Your task to perform on an android device: Search for seafood restaurants on Google Maps Image 0: 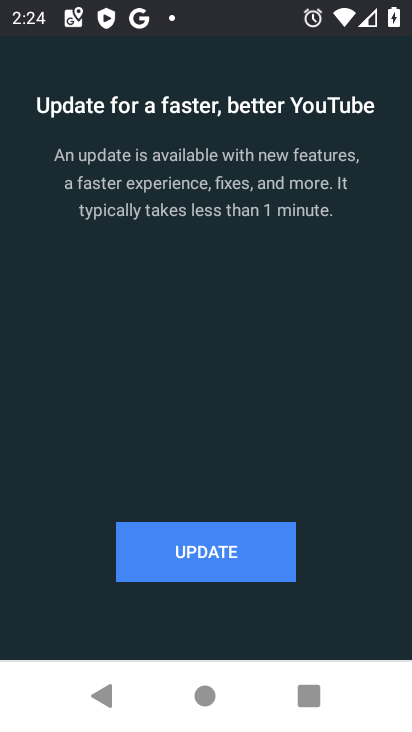
Step 0: press home button
Your task to perform on an android device: Search for seafood restaurants on Google Maps Image 1: 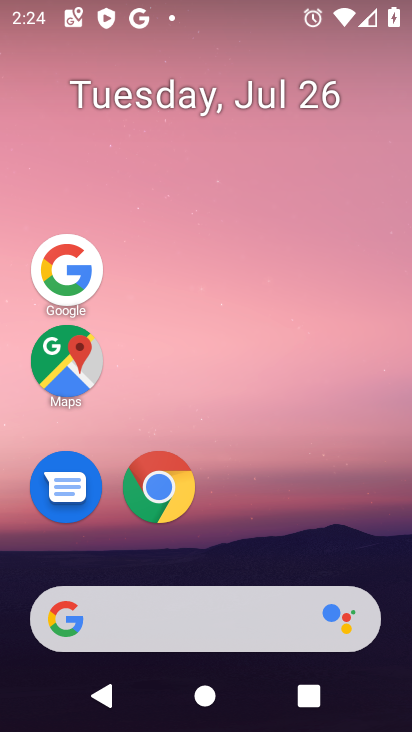
Step 1: click (56, 385)
Your task to perform on an android device: Search for seafood restaurants on Google Maps Image 2: 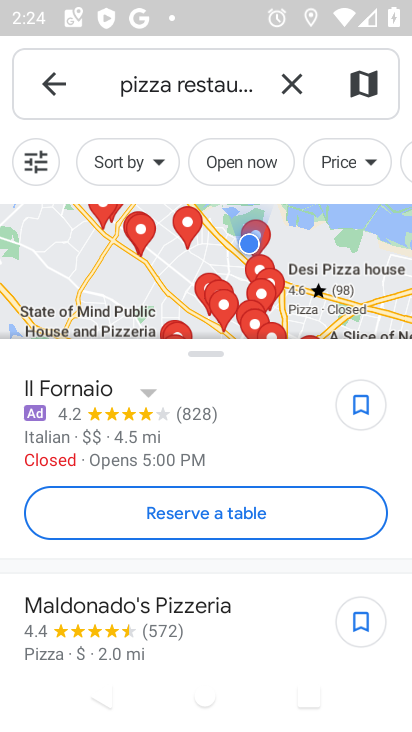
Step 2: click (294, 97)
Your task to perform on an android device: Search for seafood restaurants on Google Maps Image 3: 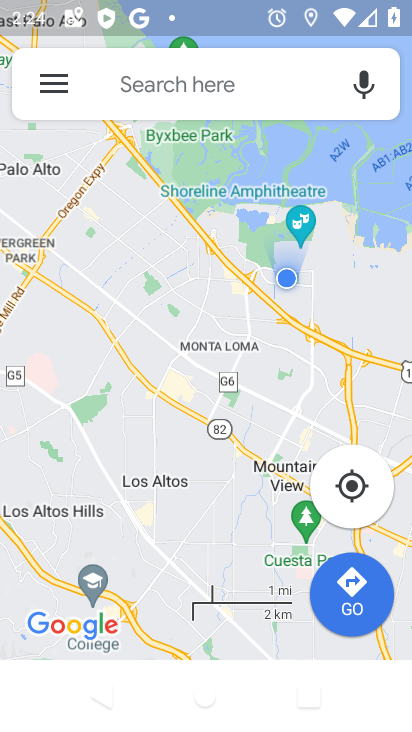
Step 3: click (280, 92)
Your task to perform on an android device: Search for seafood restaurants on Google Maps Image 4: 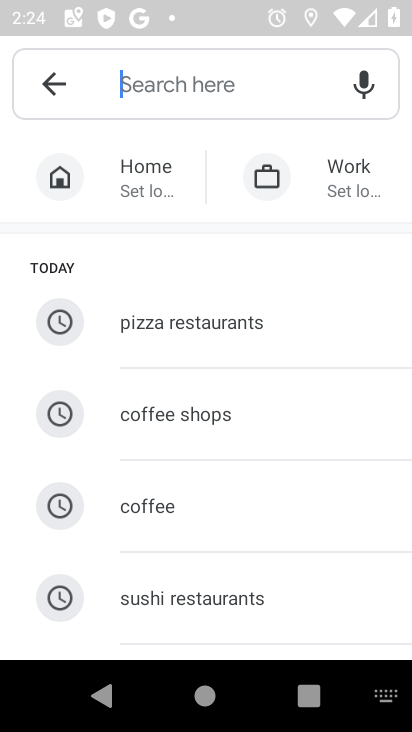
Step 4: drag from (147, 556) to (210, 134)
Your task to perform on an android device: Search for seafood restaurants on Google Maps Image 5: 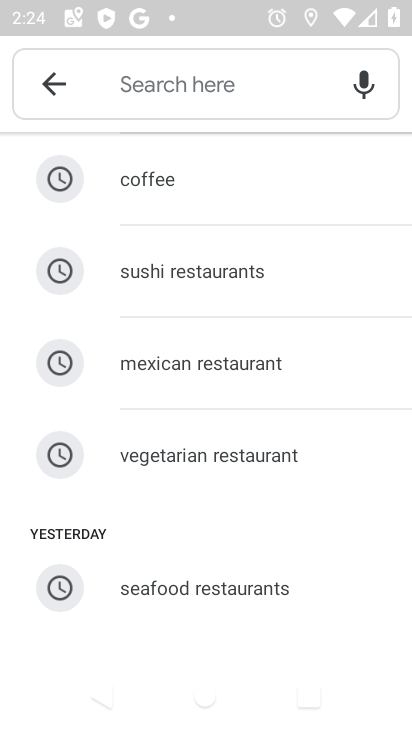
Step 5: click (223, 596)
Your task to perform on an android device: Search for seafood restaurants on Google Maps Image 6: 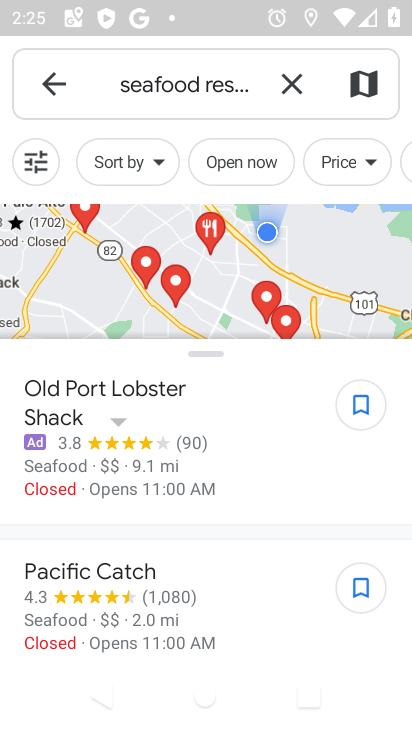
Step 6: task complete